Your task to perform on an android device: open app "Pluto TV - Live TV and Movies" Image 0: 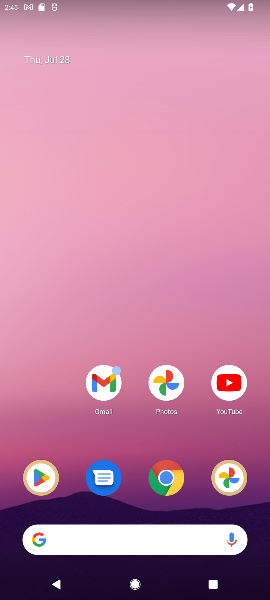
Step 0: press home button
Your task to perform on an android device: open app "Pluto TV - Live TV and Movies" Image 1: 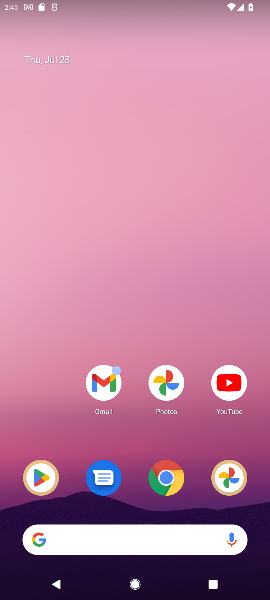
Step 1: click (33, 478)
Your task to perform on an android device: open app "Pluto TV - Live TV and Movies" Image 2: 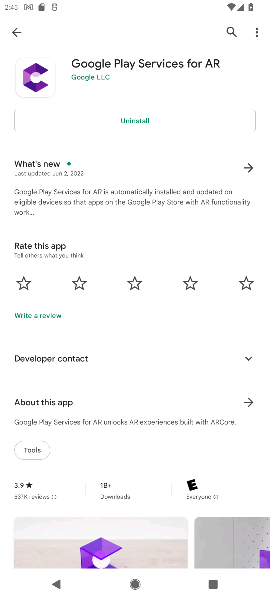
Step 2: click (14, 30)
Your task to perform on an android device: open app "Pluto TV - Live TV and Movies" Image 3: 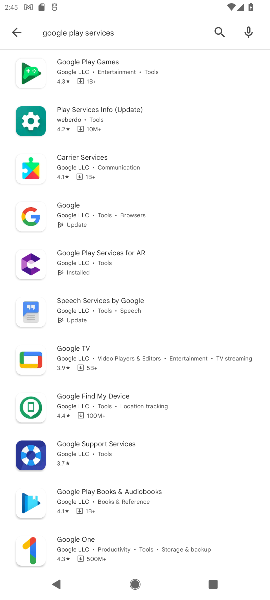
Step 3: click (15, 32)
Your task to perform on an android device: open app "Pluto TV - Live TV and Movies" Image 4: 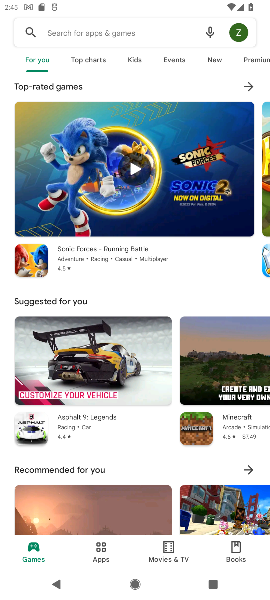
Step 4: click (97, 32)
Your task to perform on an android device: open app "Pluto TV - Live TV and Movies" Image 5: 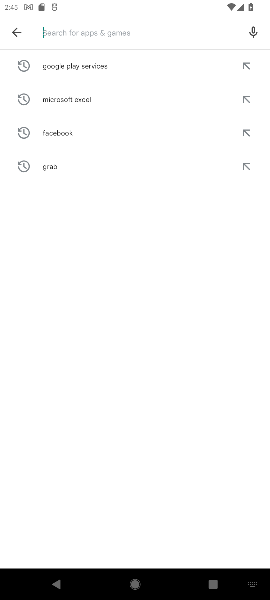
Step 5: type "Pluto TV - Live TV and Movies"
Your task to perform on an android device: open app "Pluto TV - Live TV and Movies" Image 6: 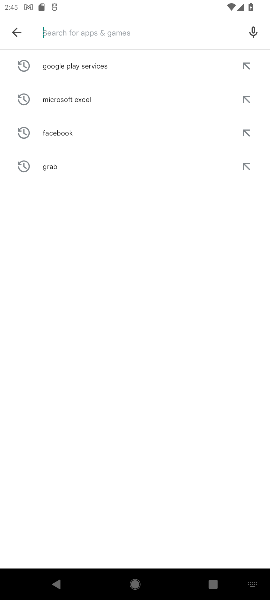
Step 6: click (63, 26)
Your task to perform on an android device: open app "Pluto TV - Live TV and Movies" Image 7: 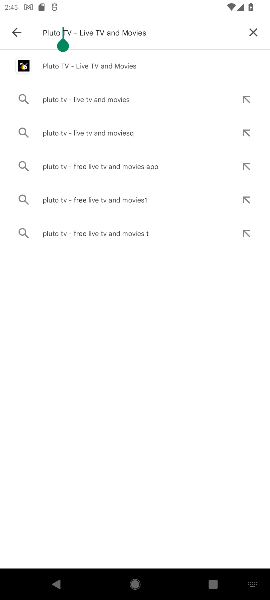
Step 7: click (86, 65)
Your task to perform on an android device: open app "Pluto TV - Live TV and Movies" Image 8: 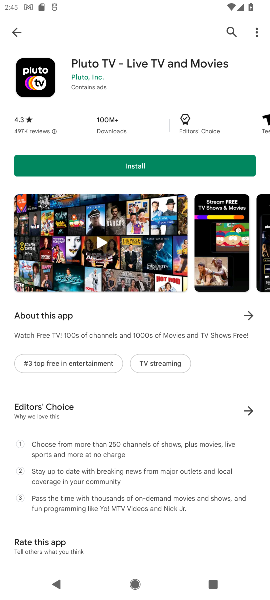
Step 8: click (165, 166)
Your task to perform on an android device: open app "Pluto TV - Live TV and Movies" Image 9: 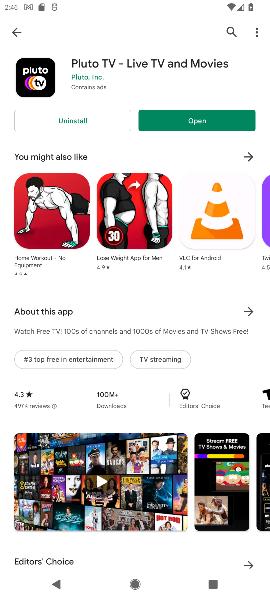
Step 9: click (182, 121)
Your task to perform on an android device: open app "Pluto TV - Live TV and Movies" Image 10: 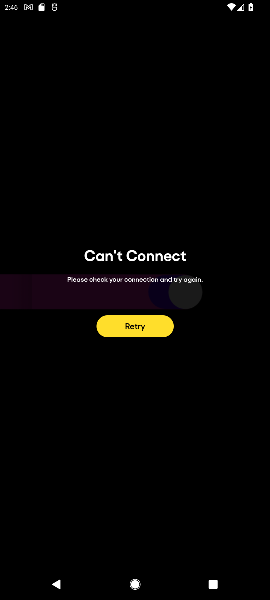
Step 10: click (118, 330)
Your task to perform on an android device: open app "Pluto TV - Live TV and Movies" Image 11: 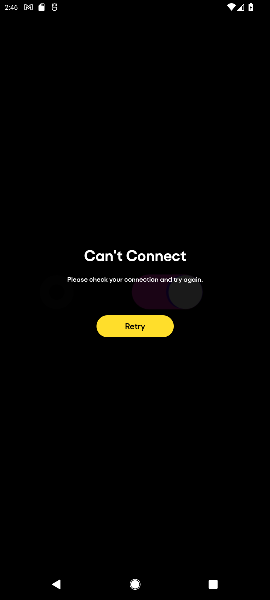
Step 11: click (134, 323)
Your task to perform on an android device: open app "Pluto TV - Live TV and Movies" Image 12: 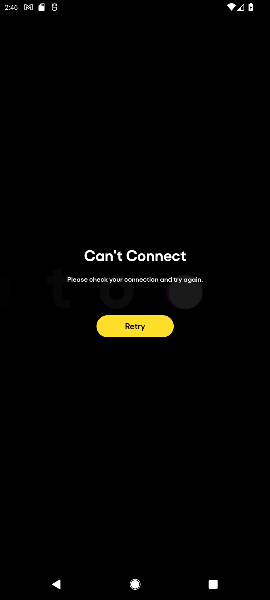
Step 12: task complete